Your task to perform on an android device: turn off sleep mode Image 0: 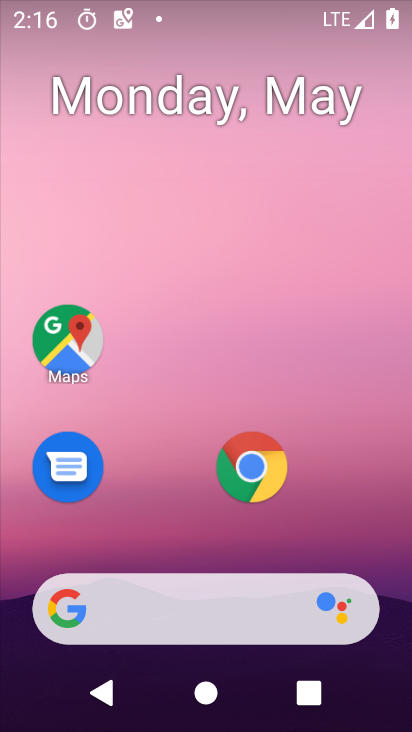
Step 0: drag from (220, 544) to (247, 169)
Your task to perform on an android device: turn off sleep mode Image 1: 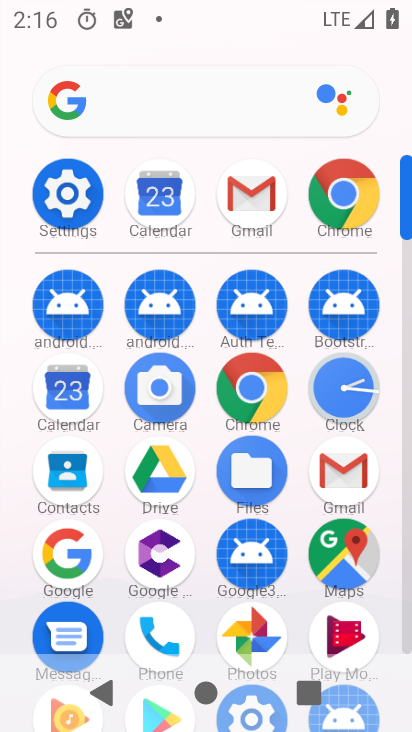
Step 1: click (49, 199)
Your task to perform on an android device: turn off sleep mode Image 2: 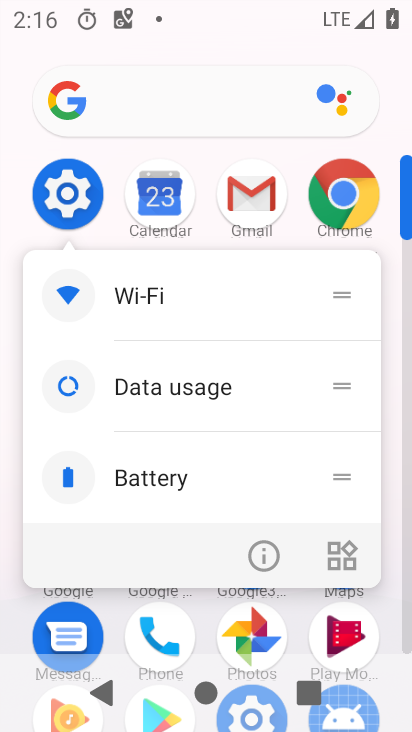
Step 2: click (260, 563)
Your task to perform on an android device: turn off sleep mode Image 3: 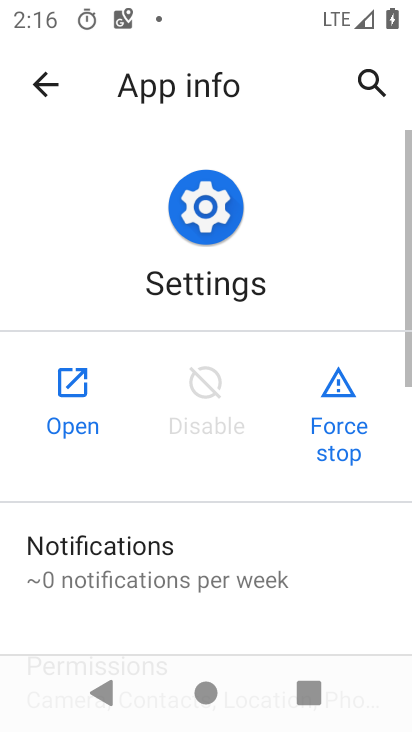
Step 3: click (72, 398)
Your task to perform on an android device: turn off sleep mode Image 4: 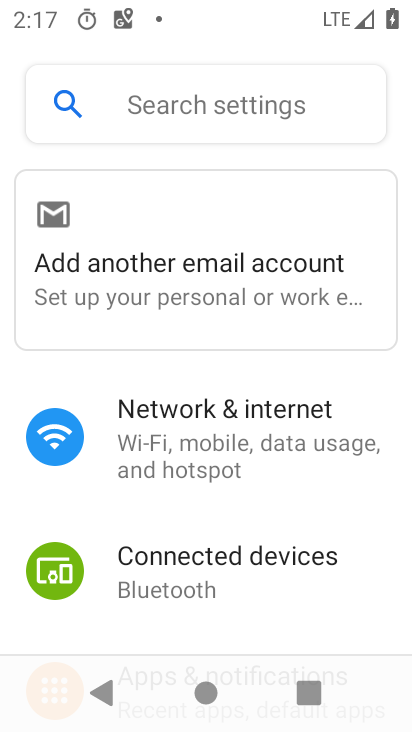
Step 4: drag from (221, 566) to (377, 53)
Your task to perform on an android device: turn off sleep mode Image 5: 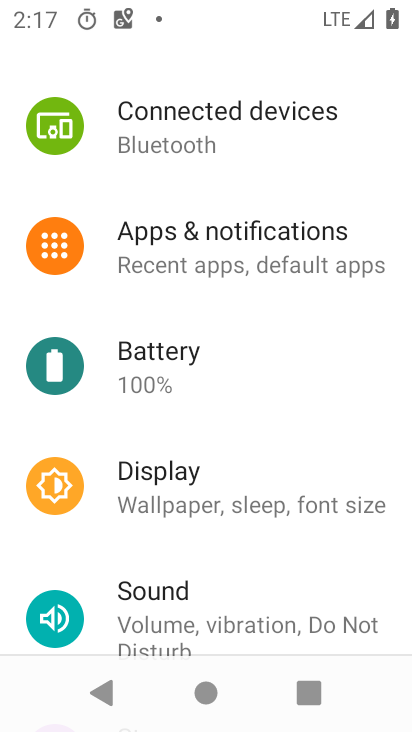
Step 5: click (169, 486)
Your task to perform on an android device: turn off sleep mode Image 6: 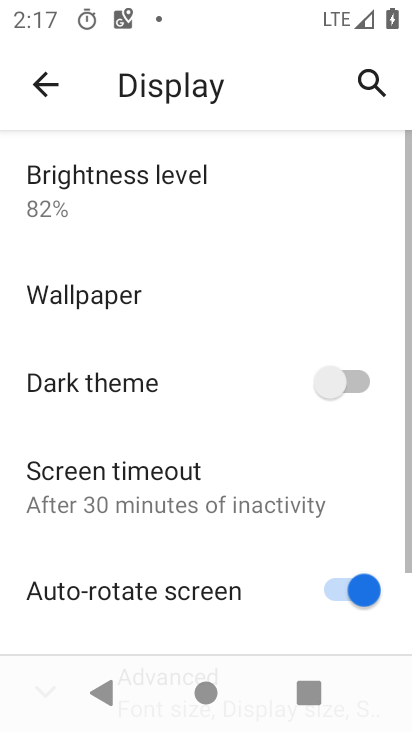
Step 6: click (187, 494)
Your task to perform on an android device: turn off sleep mode Image 7: 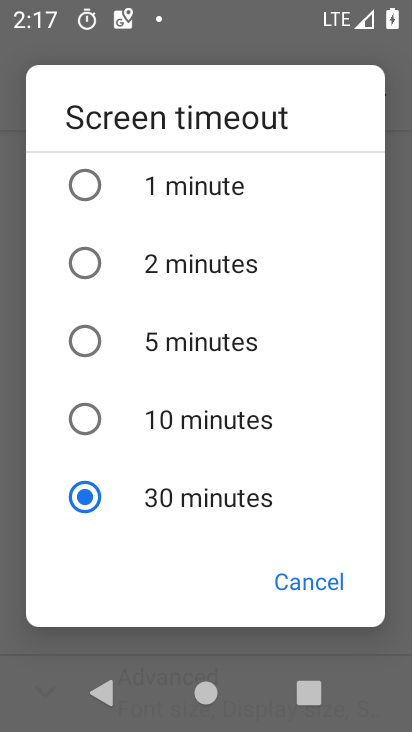
Step 7: task complete